Your task to perform on an android device: Go to Yahoo.com Image 0: 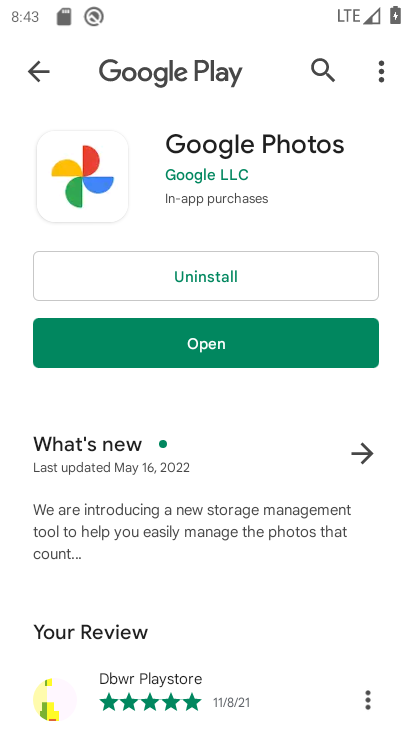
Step 0: press home button
Your task to perform on an android device: Go to Yahoo.com Image 1: 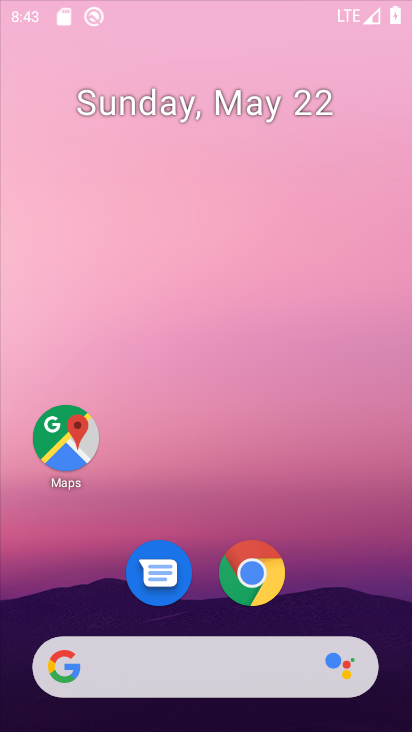
Step 1: drag from (231, 615) to (276, 68)
Your task to perform on an android device: Go to Yahoo.com Image 2: 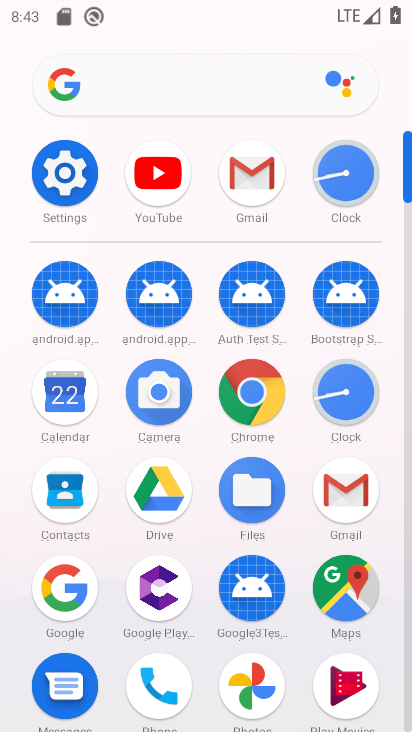
Step 2: click (245, 88)
Your task to perform on an android device: Go to Yahoo.com Image 3: 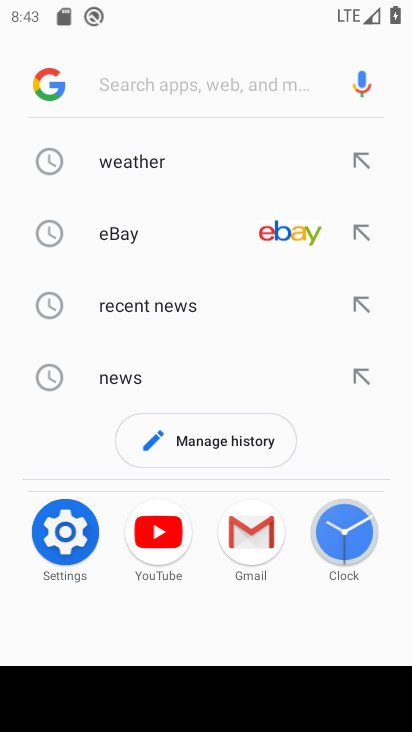
Step 3: type "yahoo.com"
Your task to perform on an android device: Go to Yahoo.com Image 4: 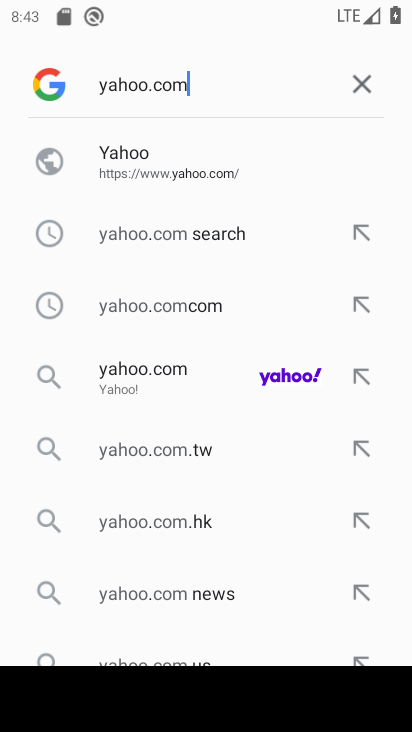
Step 4: click (145, 141)
Your task to perform on an android device: Go to Yahoo.com Image 5: 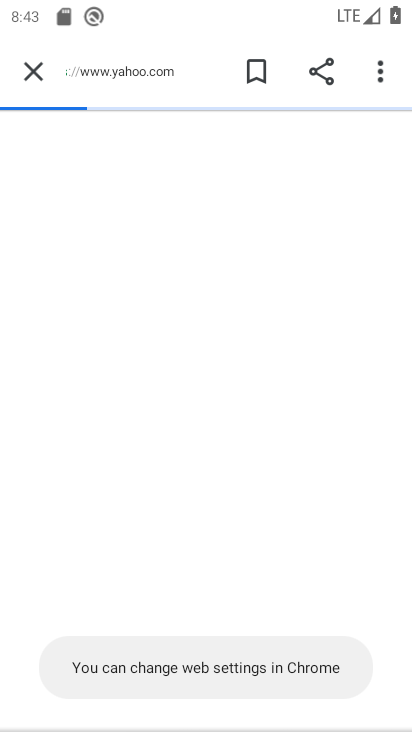
Step 5: task complete